Your task to perform on an android device: visit the assistant section in the google photos Image 0: 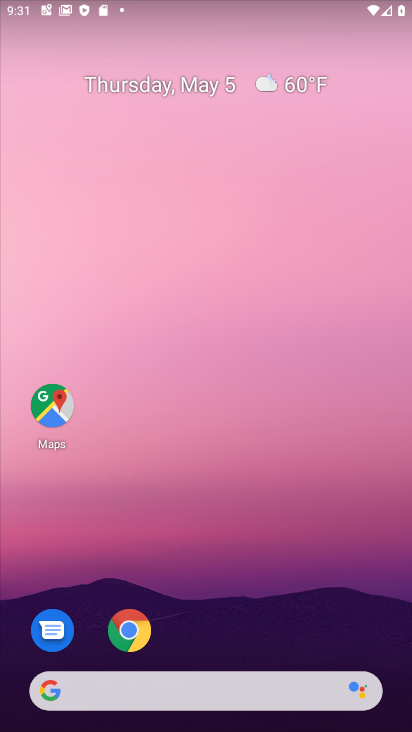
Step 0: drag from (266, 585) to (260, 115)
Your task to perform on an android device: visit the assistant section in the google photos Image 1: 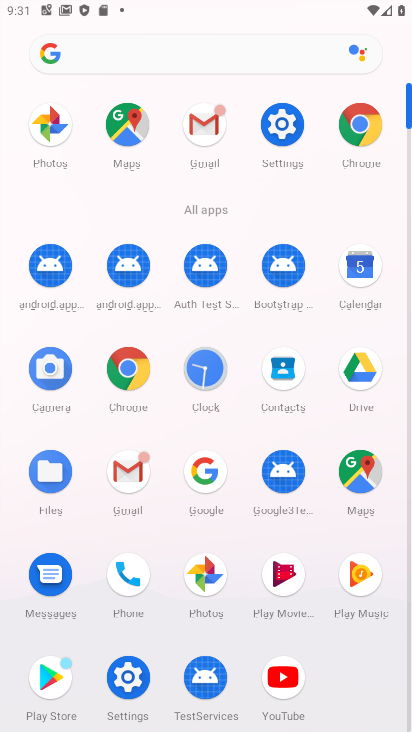
Step 1: click (211, 569)
Your task to perform on an android device: visit the assistant section in the google photos Image 2: 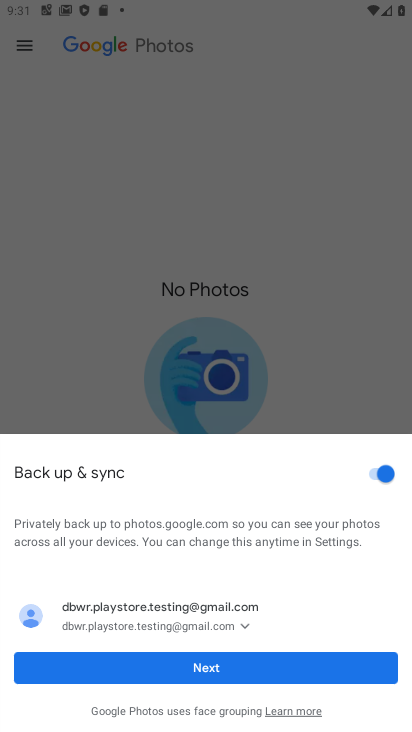
Step 2: click (246, 345)
Your task to perform on an android device: visit the assistant section in the google photos Image 3: 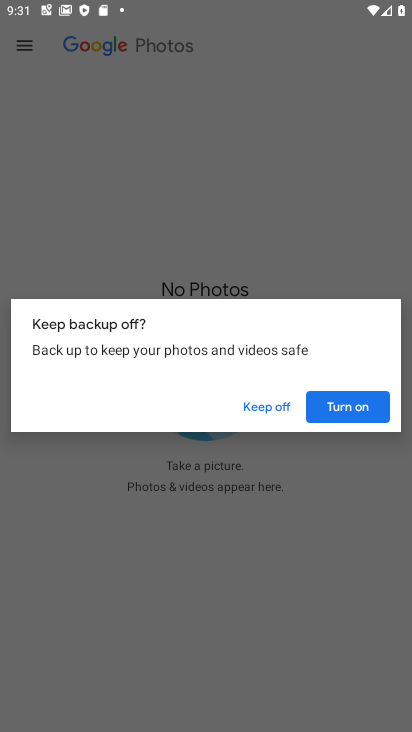
Step 3: click (276, 409)
Your task to perform on an android device: visit the assistant section in the google photos Image 4: 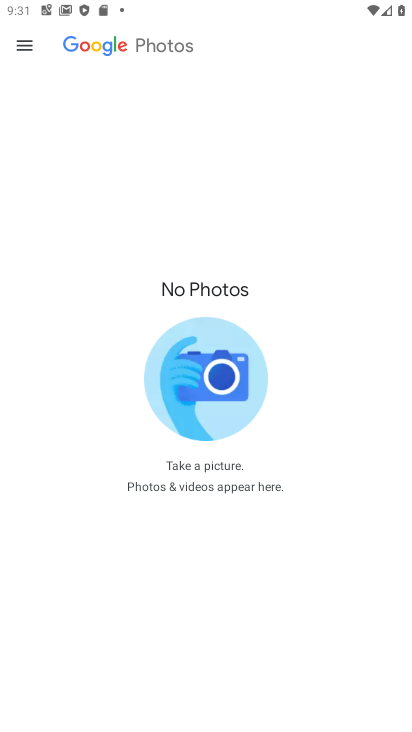
Step 4: click (37, 57)
Your task to perform on an android device: visit the assistant section in the google photos Image 5: 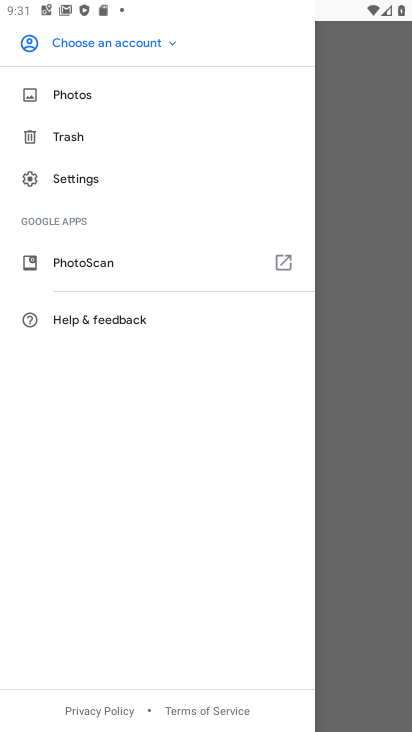
Step 5: click (84, 93)
Your task to perform on an android device: visit the assistant section in the google photos Image 6: 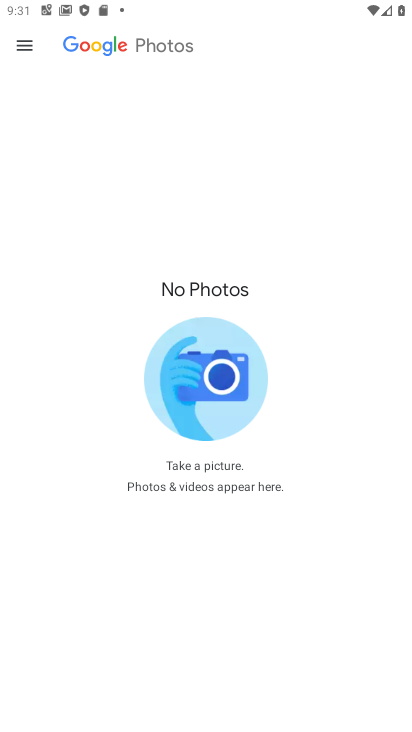
Step 6: drag from (205, 604) to (224, 265)
Your task to perform on an android device: visit the assistant section in the google photos Image 7: 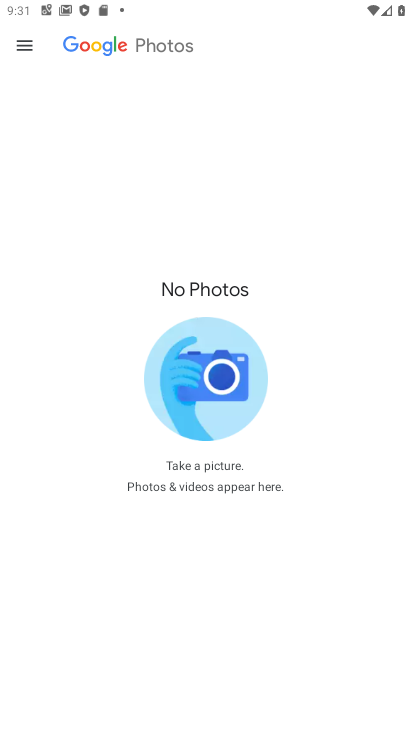
Step 7: click (34, 40)
Your task to perform on an android device: visit the assistant section in the google photos Image 8: 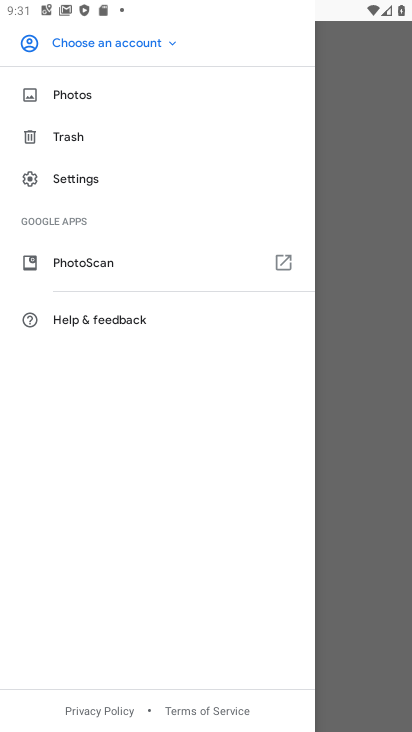
Step 8: task complete